Your task to perform on an android device: check out phone information Image 0: 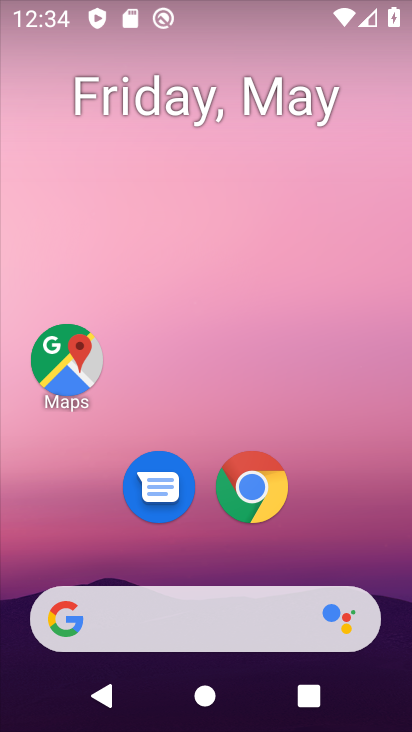
Step 0: drag from (116, 587) to (212, 152)
Your task to perform on an android device: check out phone information Image 1: 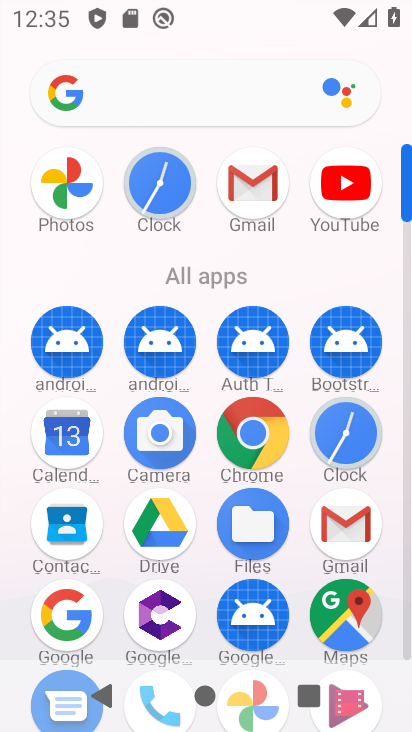
Step 1: drag from (178, 505) to (272, 242)
Your task to perform on an android device: check out phone information Image 2: 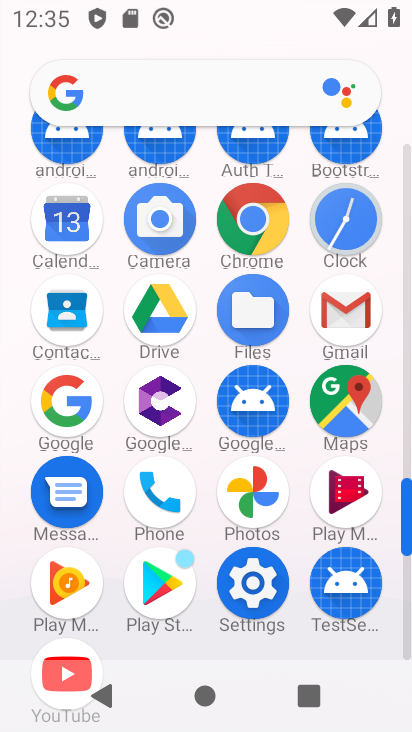
Step 2: click (254, 577)
Your task to perform on an android device: check out phone information Image 3: 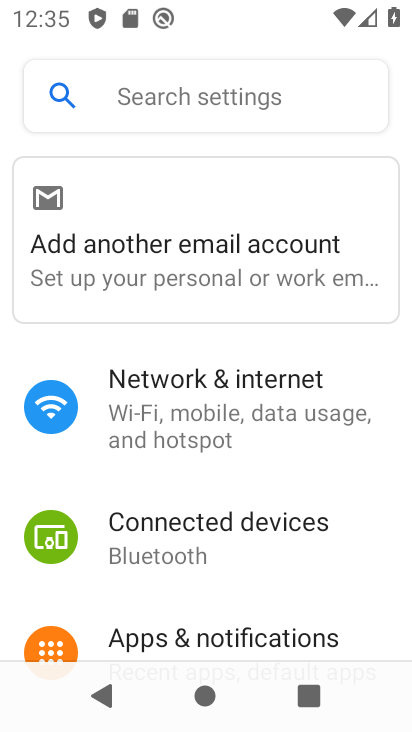
Step 3: drag from (111, 594) to (267, 78)
Your task to perform on an android device: check out phone information Image 4: 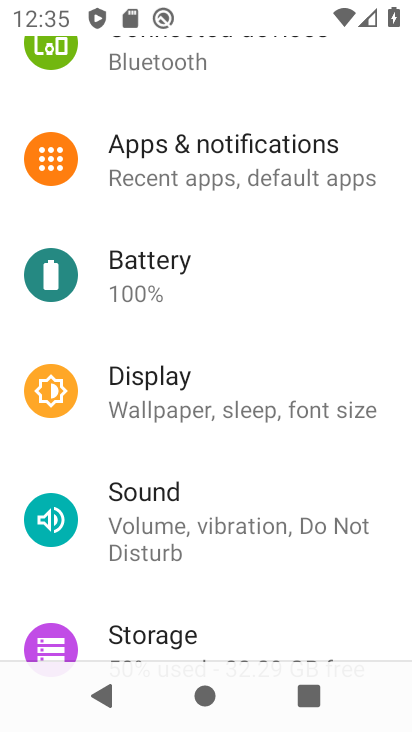
Step 4: drag from (217, 634) to (349, 58)
Your task to perform on an android device: check out phone information Image 5: 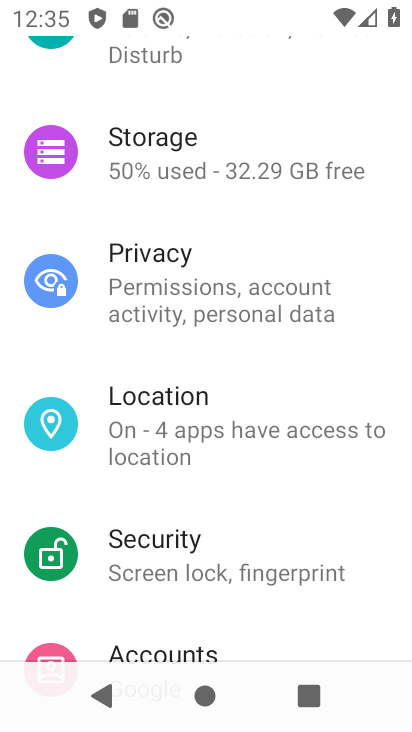
Step 5: drag from (140, 625) to (278, 68)
Your task to perform on an android device: check out phone information Image 6: 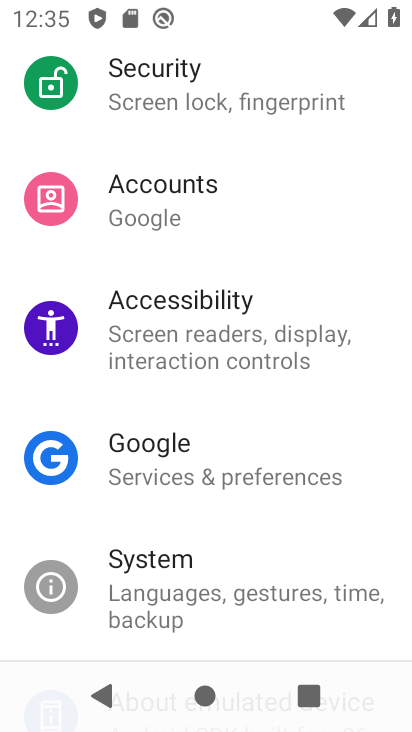
Step 6: drag from (155, 596) to (298, 97)
Your task to perform on an android device: check out phone information Image 7: 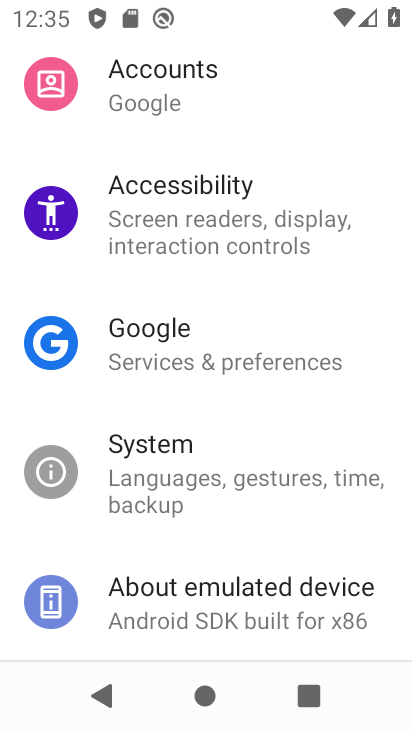
Step 7: click (236, 631)
Your task to perform on an android device: check out phone information Image 8: 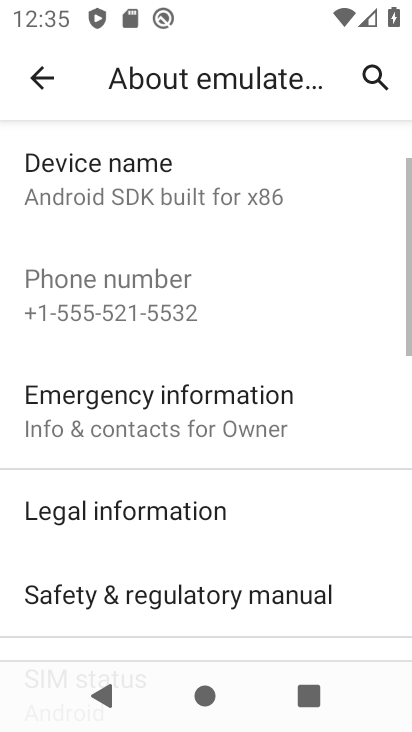
Step 8: task complete